Your task to perform on an android device: Search for pizza restaurants on Maps Image 0: 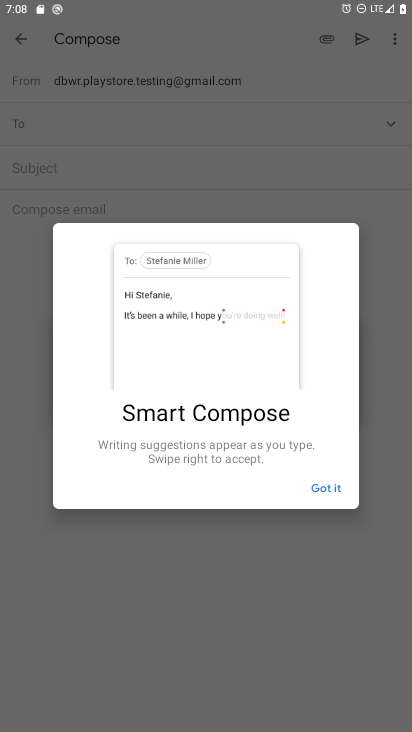
Step 0: press home button
Your task to perform on an android device: Search for pizza restaurants on Maps Image 1: 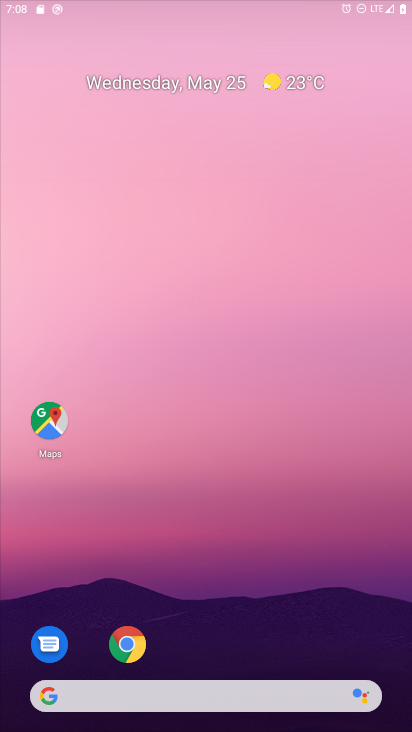
Step 1: drag from (396, 630) to (313, 47)
Your task to perform on an android device: Search for pizza restaurants on Maps Image 2: 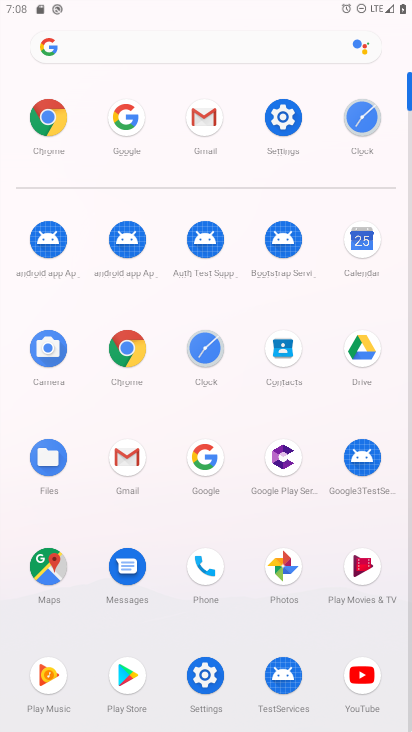
Step 2: click (43, 563)
Your task to perform on an android device: Search for pizza restaurants on Maps Image 3: 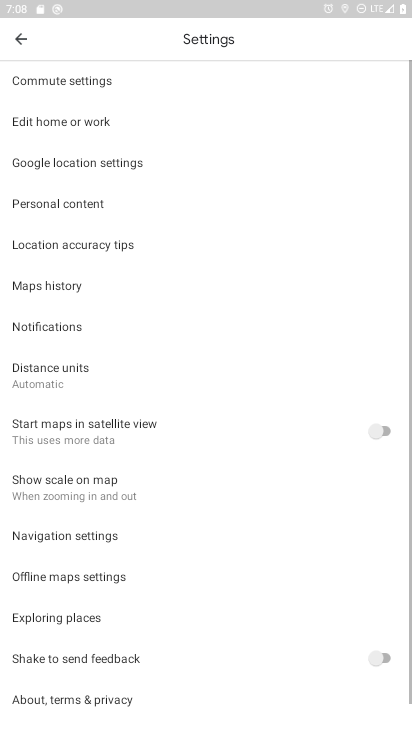
Step 3: press back button
Your task to perform on an android device: Search for pizza restaurants on Maps Image 4: 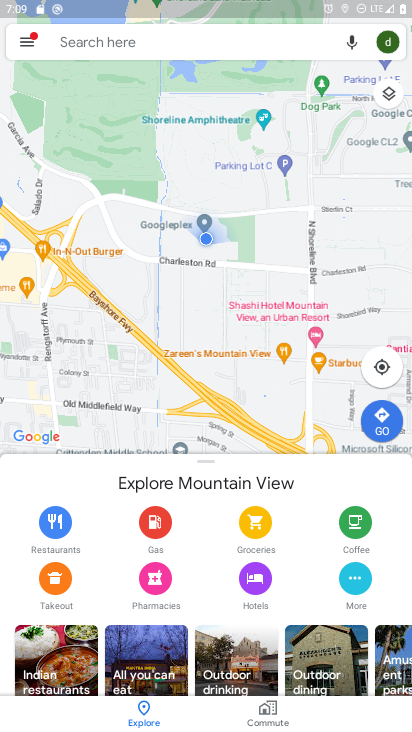
Step 4: click (137, 42)
Your task to perform on an android device: Search for pizza restaurants on Maps Image 5: 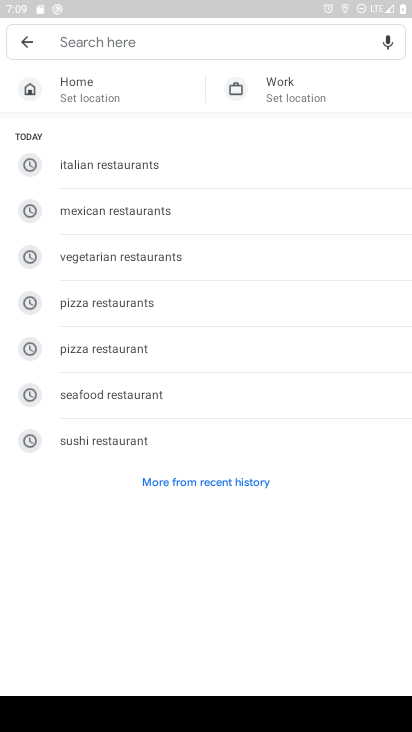
Step 5: click (125, 315)
Your task to perform on an android device: Search for pizza restaurants on Maps Image 6: 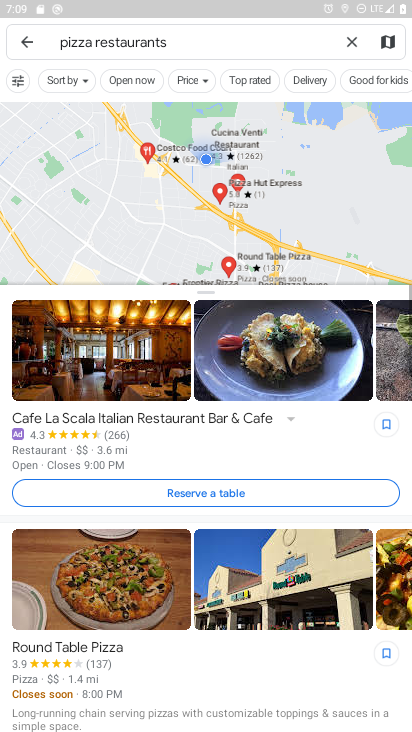
Step 6: task complete